Your task to perform on an android device: Open calendar and show me the second week of next month Image 0: 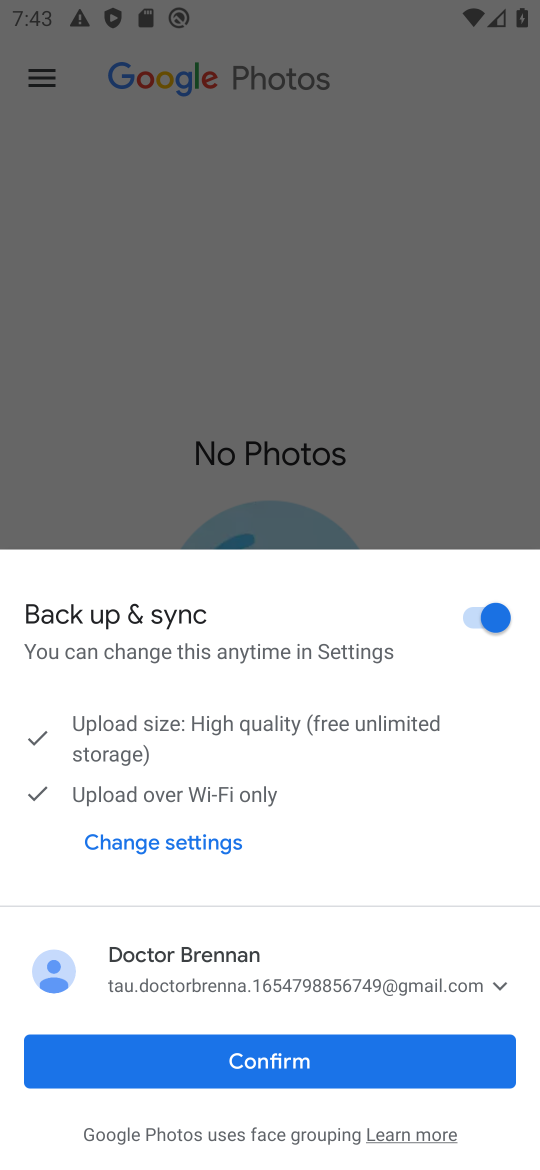
Step 0: press home button
Your task to perform on an android device: Open calendar and show me the second week of next month Image 1: 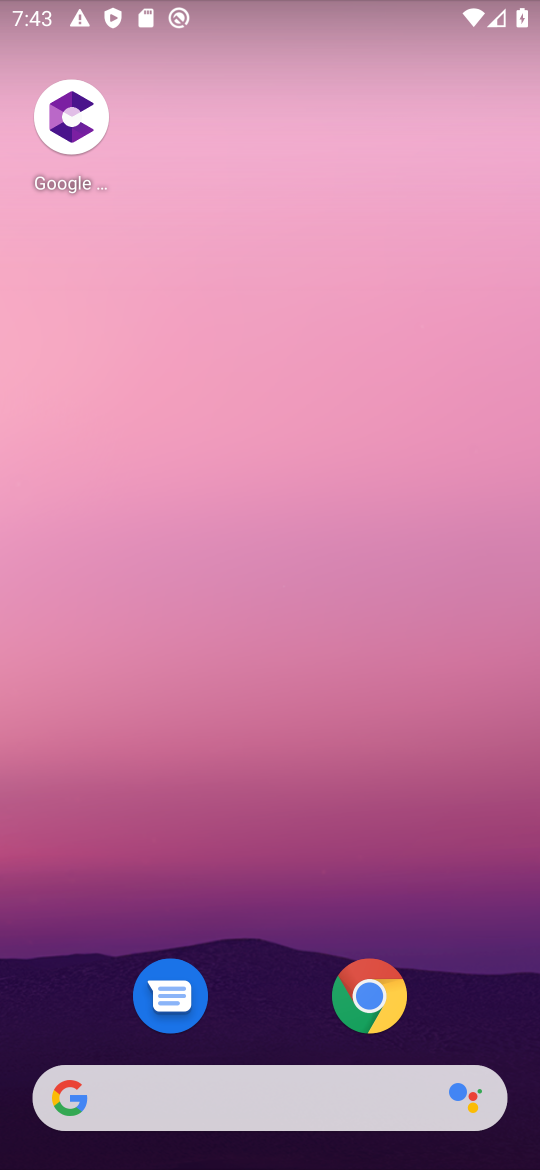
Step 1: drag from (272, 1020) to (351, 129)
Your task to perform on an android device: Open calendar and show me the second week of next month Image 2: 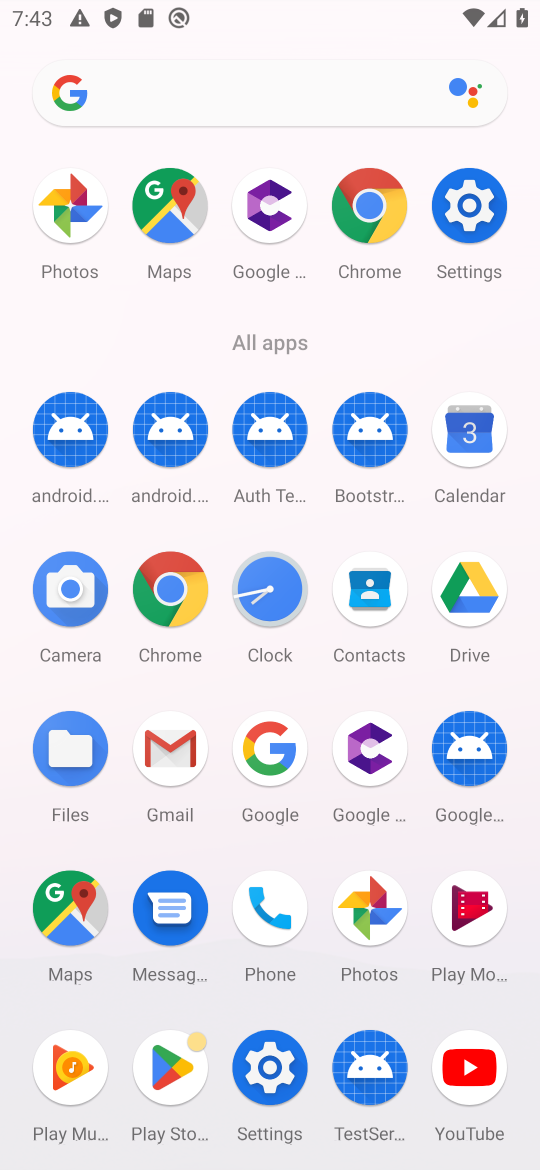
Step 2: click (456, 446)
Your task to perform on an android device: Open calendar and show me the second week of next month Image 3: 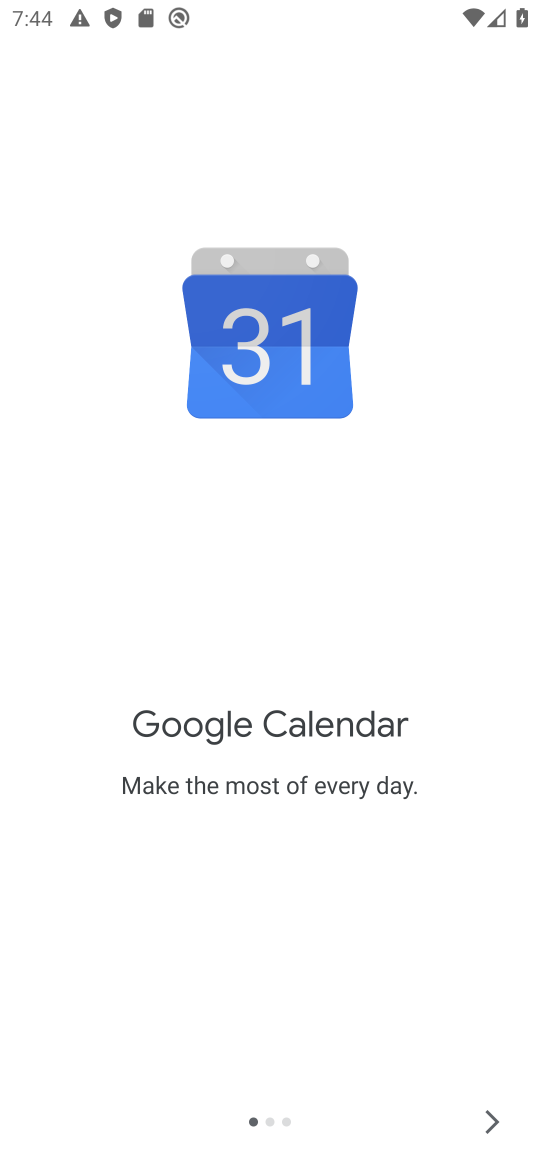
Step 3: click (485, 1109)
Your task to perform on an android device: Open calendar and show me the second week of next month Image 4: 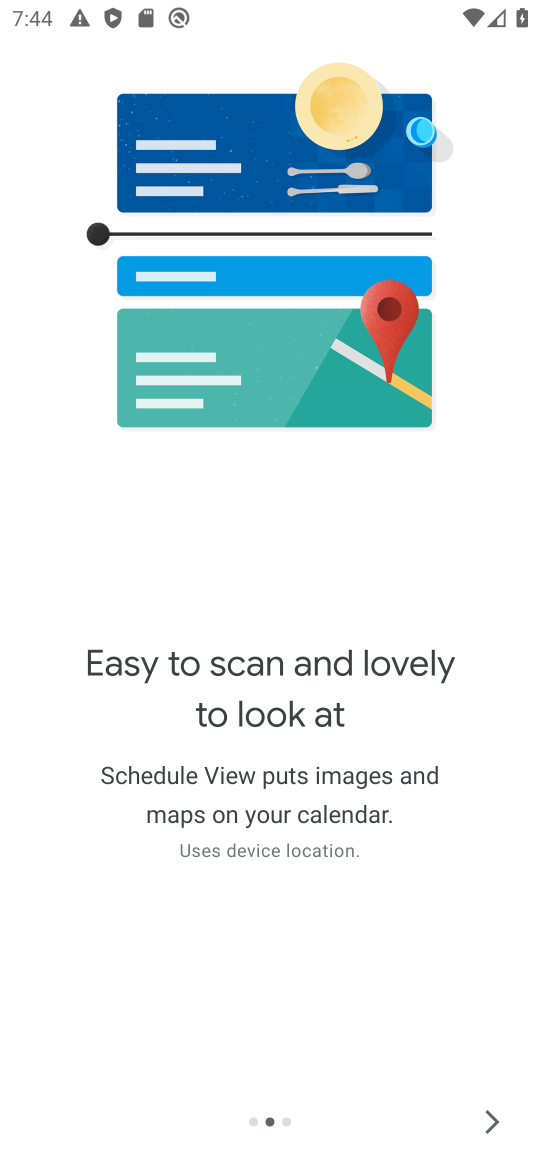
Step 4: click (483, 1119)
Your task to perform on an android device: Open calendar and show me the second week of next month Image 5: 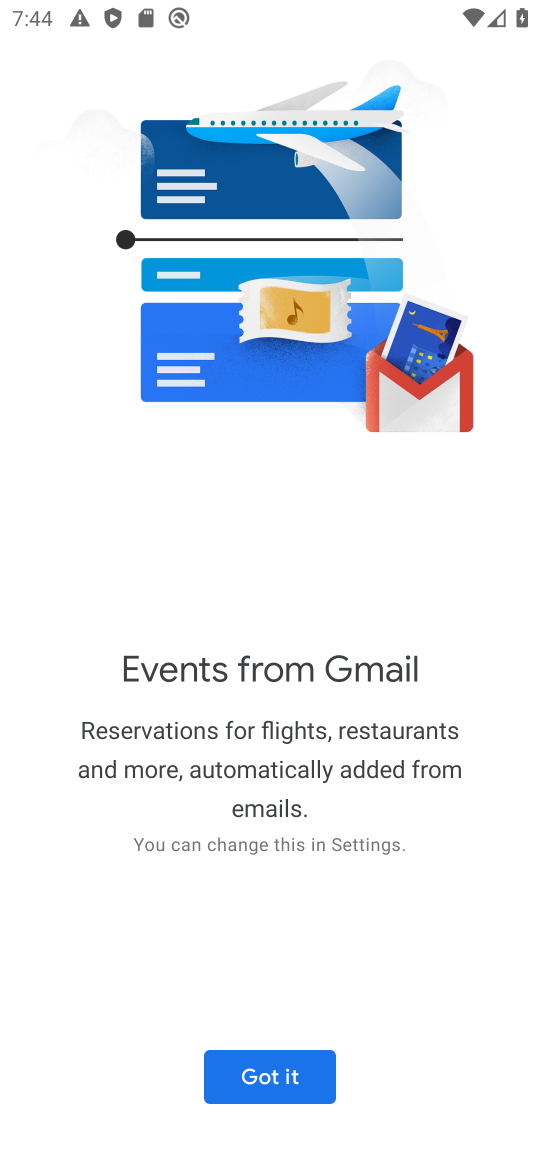
Step 5: click (290, 1086)
Your task to perform on an android device: Open calendar and show me the second week of next month Image 6: 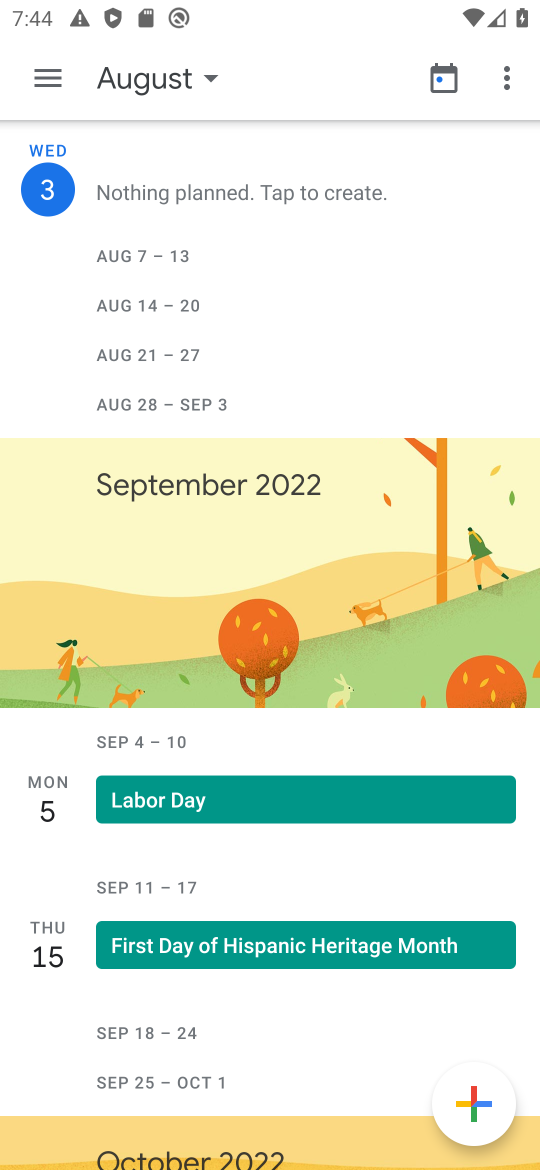
Step 6: click (59, 77)
Your task to perform on an android device: Open calendar and show me the second week of next month Image 7: 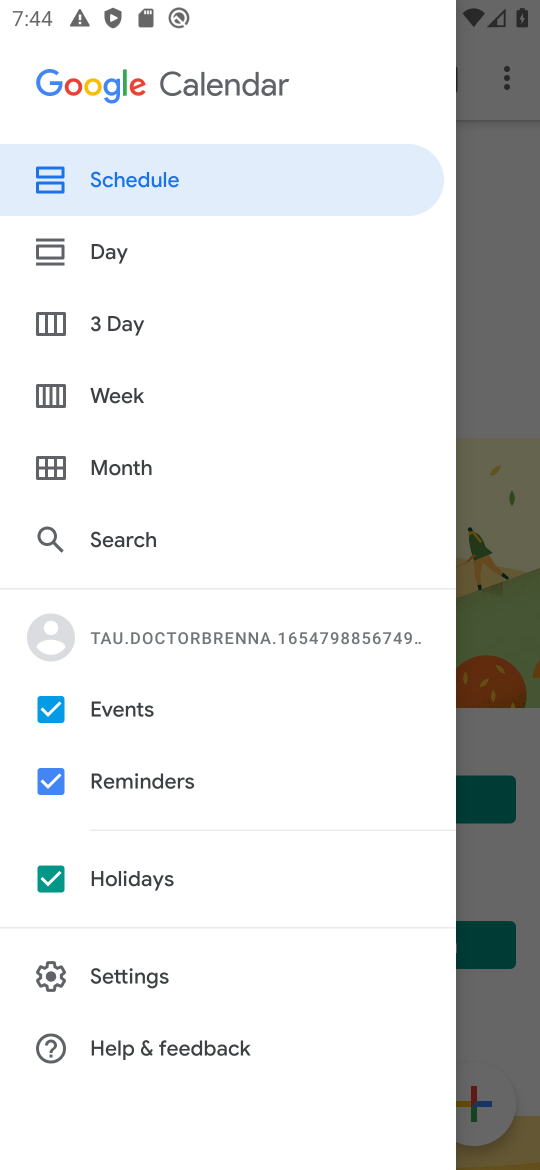
Step 7: click (130, 394)
Your task to perform on an android device: Open calendar and show me the second week of next month Image 8: 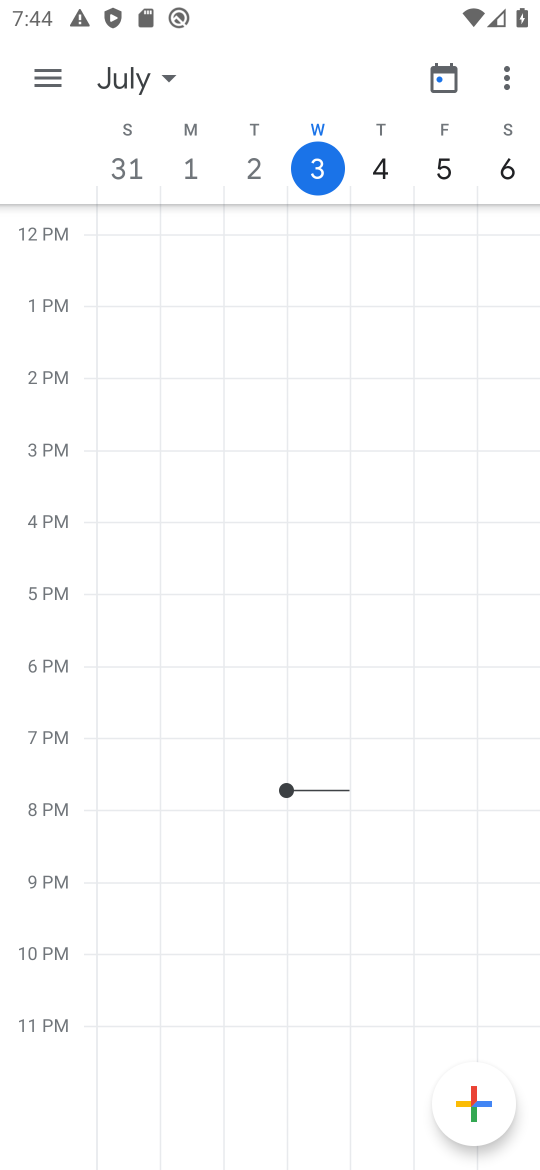
Step 8: drag from (379, 142) to (138, 127)
Your task to perform on an android device: Open calendar and show me the second week of next month Image 9: 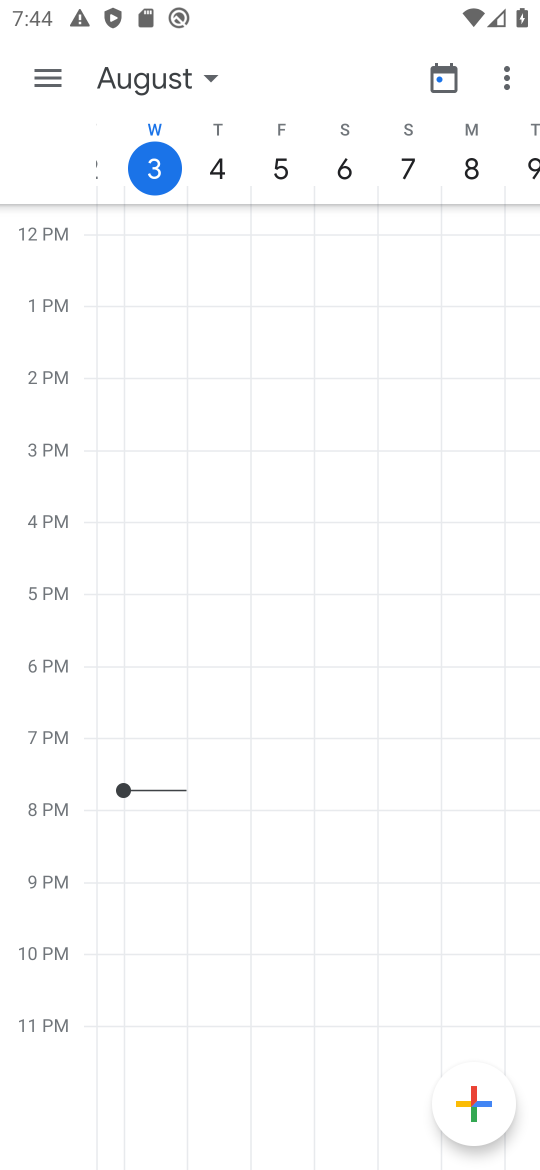
Step 9: click (144, 68)
Your task to perform on an android device: Open calendar and show me the second week of next month Image 10: 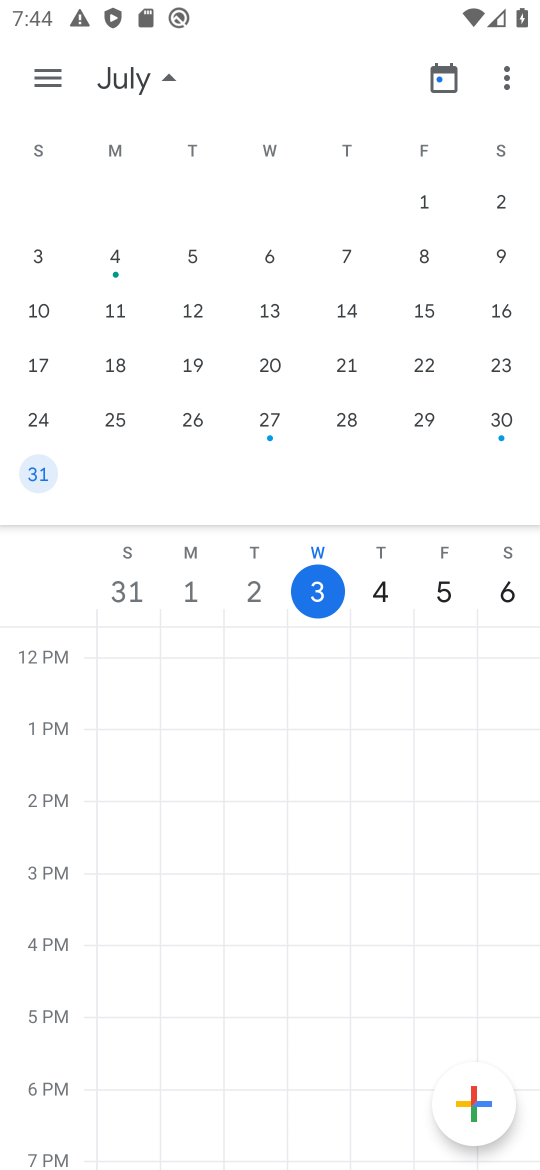
Step 10: drag from (430, 288) to (0, 293)
Your task to perform on an android device: Open calendar and show me the second week of next month Image 11: 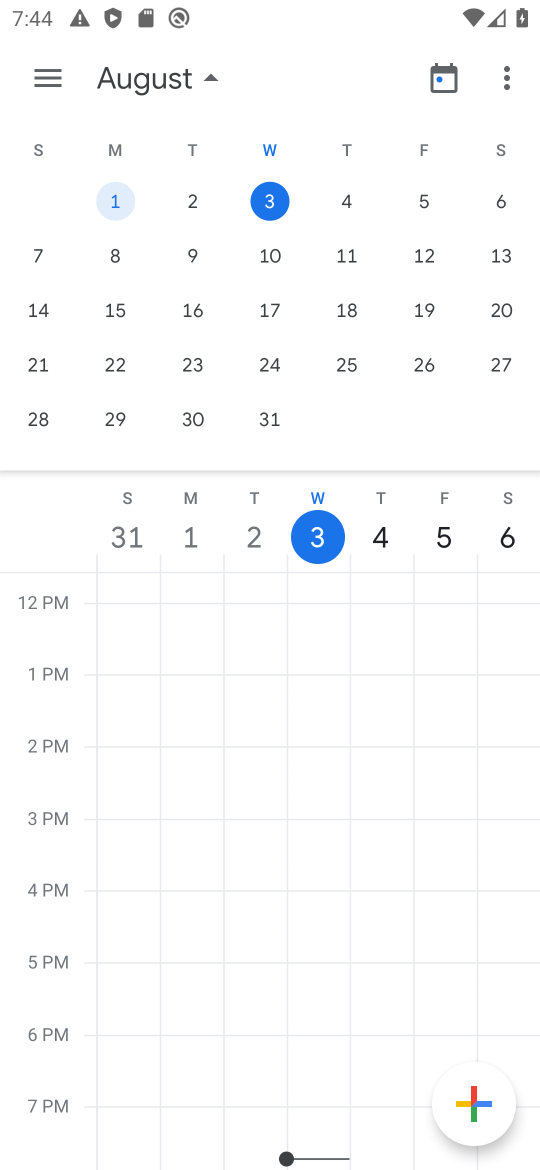
Step 11: drag from (400, 333) to (16, 291)
Your task to perform on an android device: Open calendar and show me the second week of next month Image 12: 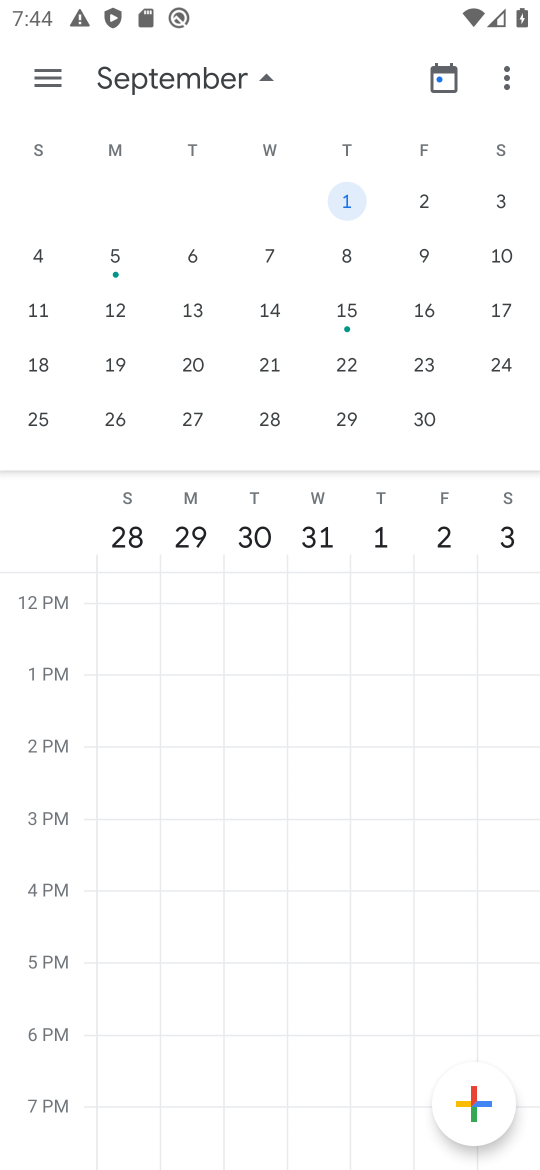
Step 12: drag from (372, 521) to (106, 525)
Your task to perform on an android device: Open calendar and show me the second week of next month Image 13: 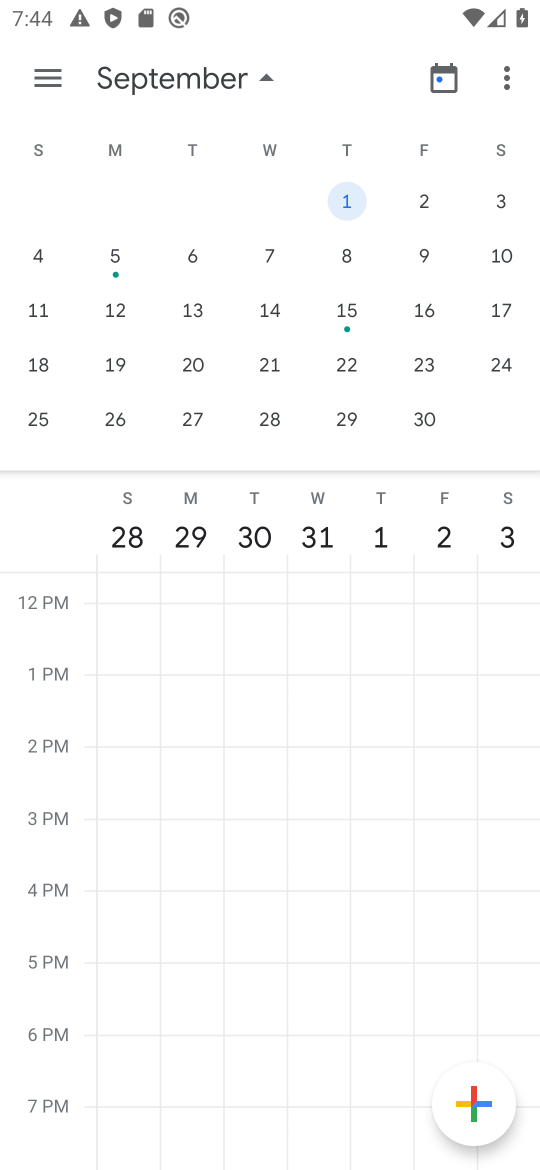
Step 13: click (489, 529)
Your task to perform on an android device: Open calendar and show me the second week of next month Image 14: 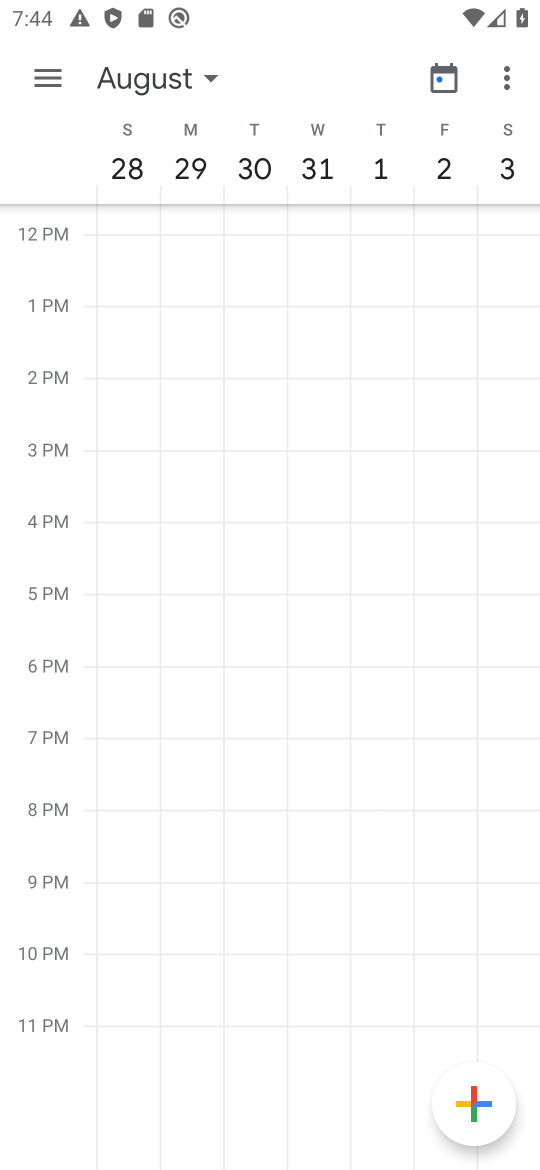
Step 14: task complete